Your task to perform on an android device: Open wifi settings Image 0: 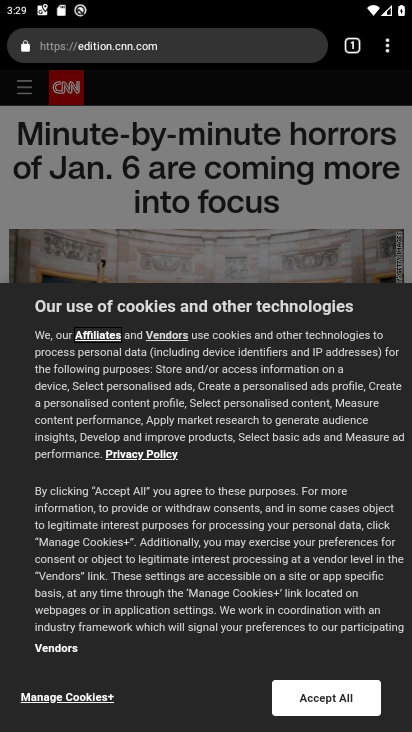
Step 0: press home button
Your task to perform on an android device: Open wifi settings Image 1: 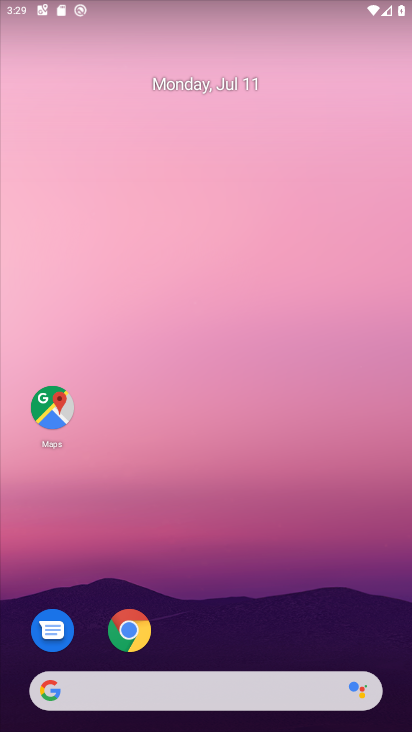
Step 1: drag from (237, 641) to (196, 82)
Your task to perform on an android device: Open wifi settings Image 2: 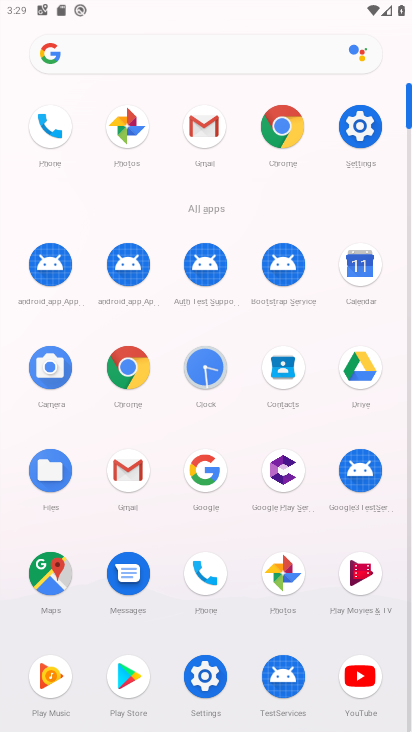
Step 2: click (207, 666)
Your task to perform on an android device: Open wifi settings Image 3: 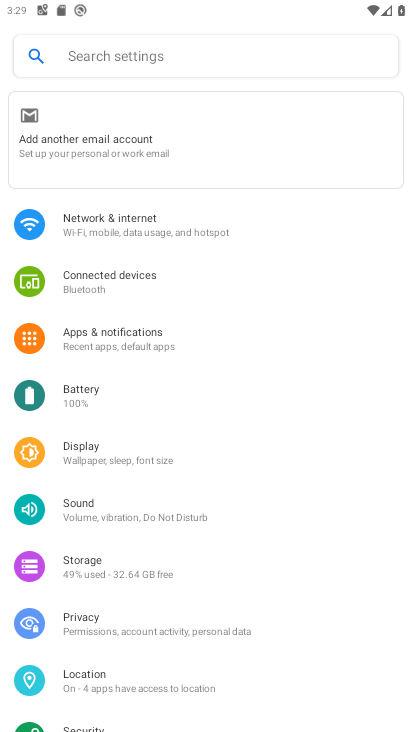
Step 3: click (114, 244)
Your task to perform on an android device: Open wifi settings Image 4: 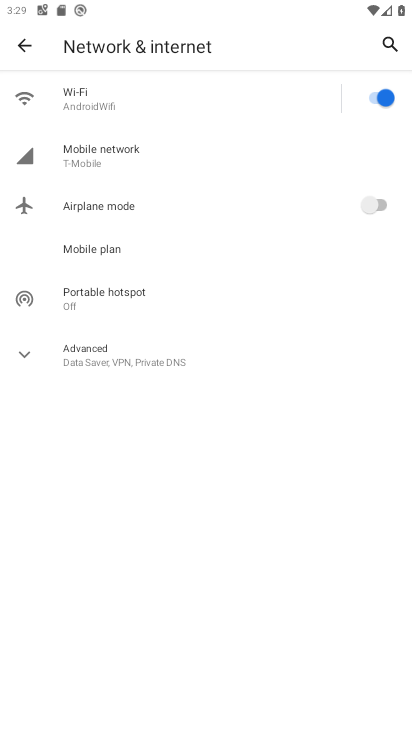
Step 4: click (134, 107)
Your task to perform on an android device: Open wifi settings Image 5: 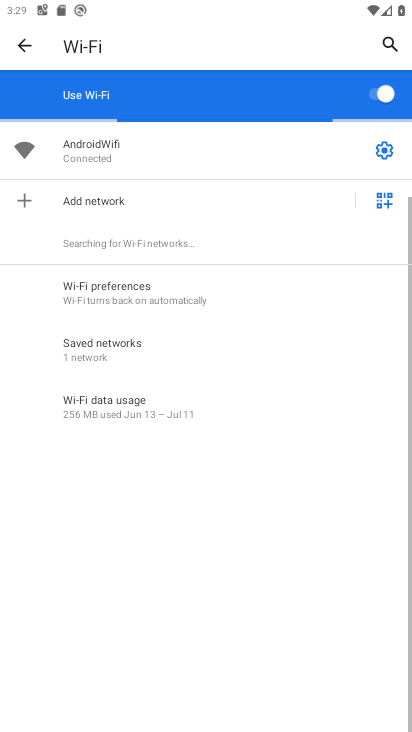
Step 5: task complete